Your task to perform on an android device: Add acer nitro to the cart on costco, then select checkout. Image 0: 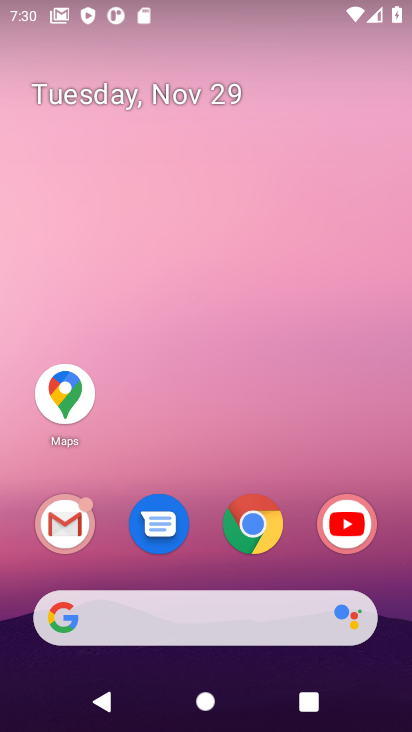
Step 0: click (244, 536)
Your task to perform on an android device: Add acer nitro to the cart on costco, then select checkout. Image 1: 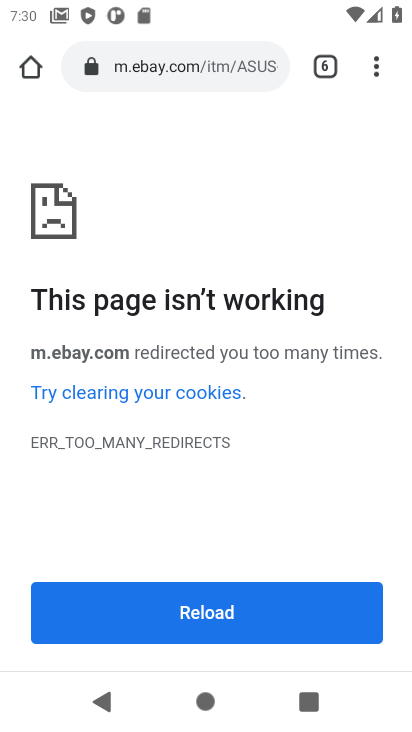
Step 1: click (170, 69)
Your task to perform on an android device: Add acer nitro to the cart on costco, then select checkout. Image 2: 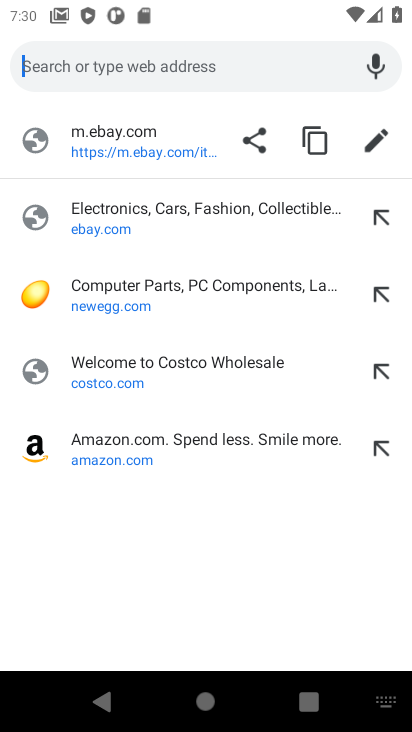
Step 2: click (104, 376)
Your task to perform on an android device: Add acer nitro to the cart on costco, then select checkout. Image 3: 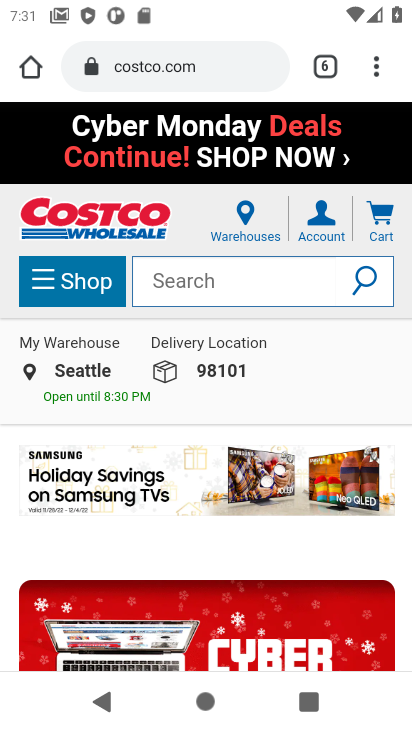
Step 3: click (197, 272)
Your task to perform on an android device: Add acer nitro to the cart on costco, then select checkout. Image 4: 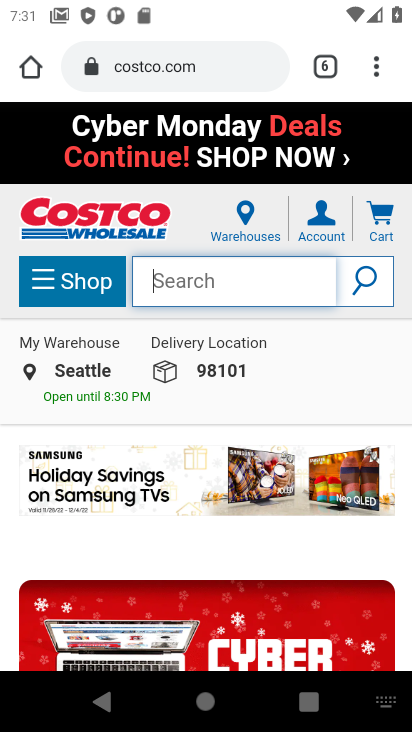
Step 4: type "acer nitro"
Your task to perform on an android device: Add acer nitro to the cart on costco, then select checkout. Image 5: 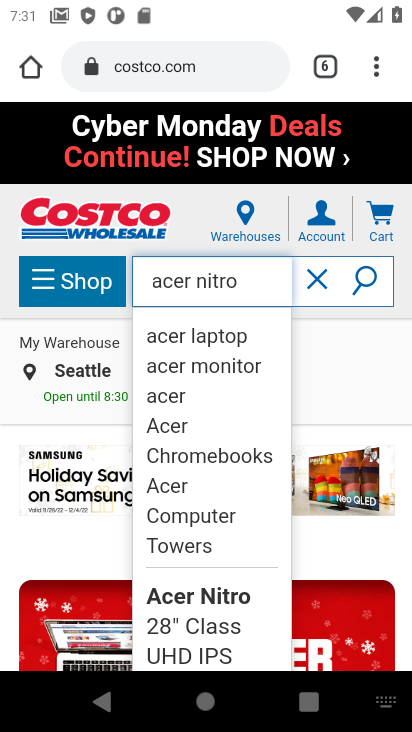
Step 5: click (362, 283)
Your task to perform on an android device: Add acer nitro to the cart on costco, then select checkout. Image 6: 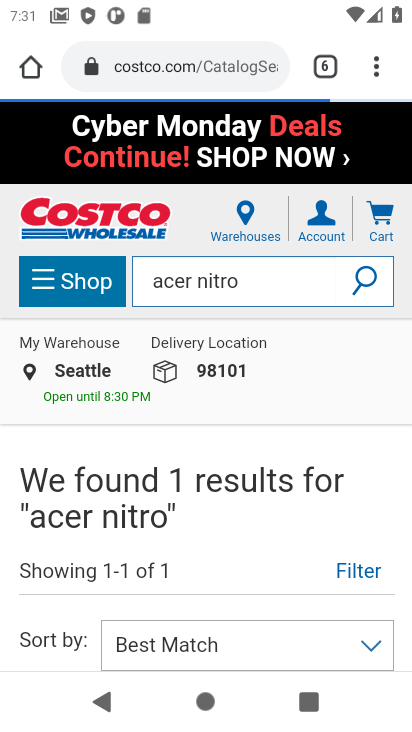
Step 6: drag from (256, 386) to (226, 142)
Your task to perform on an android device: Add acer nitro to the cart on costco, then select checkout. Image 7: 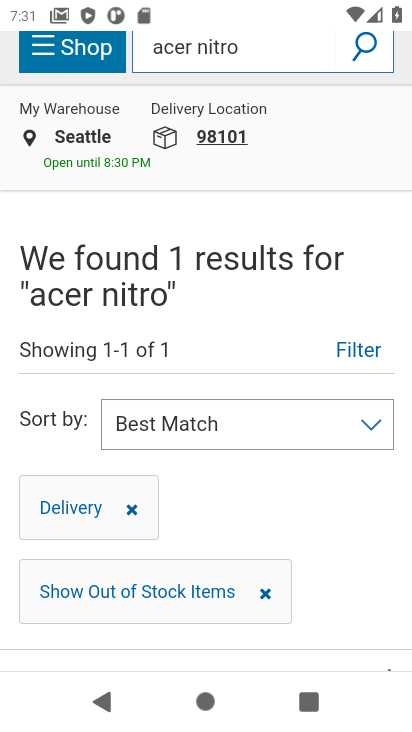
Step 7: drag from (235, 501) to (219, 301)
Your task to perform on an android device: Add acer nitro to the cart on costco, then select checkout. Image 8: 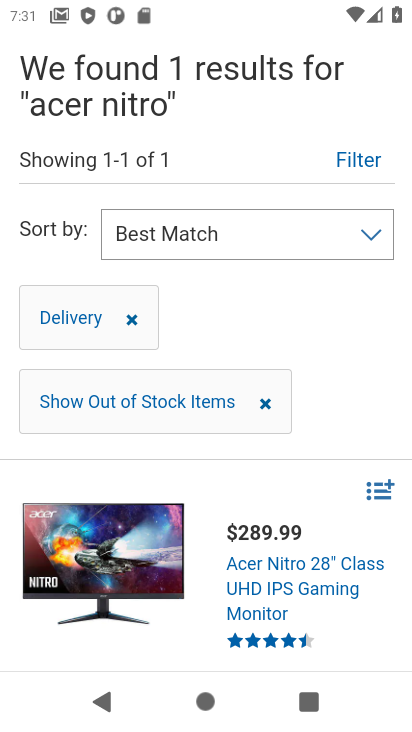
Step 8: drag from (201, 497) to (205, 349)
Your task to perform on an android device: Add acer nitro to the cart on costco, then select checkout. Image 9: 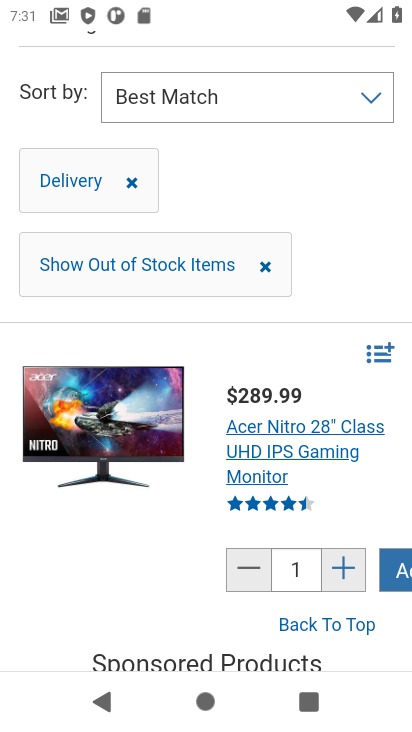
Step 9: click (403, 573)
Your task to perform on an android device: Add acer nitro to the cart on costco, then select checkout. Image 10: 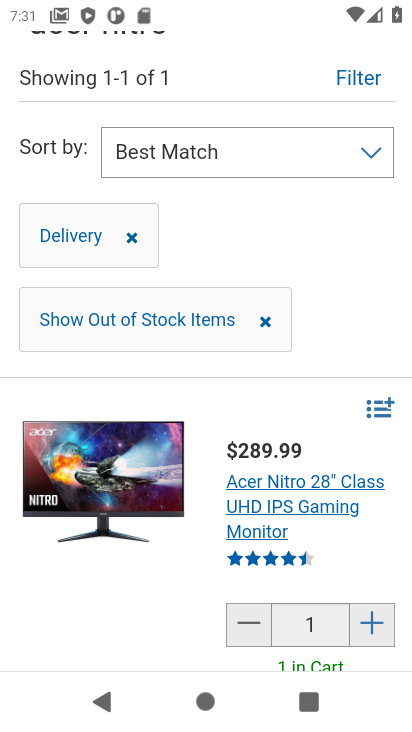
Step 10: drag from (352, 296) to (288, 504)
Your task to perform on an android device: Add acer nitro to the cart on costco, then select checkout. Image 11: 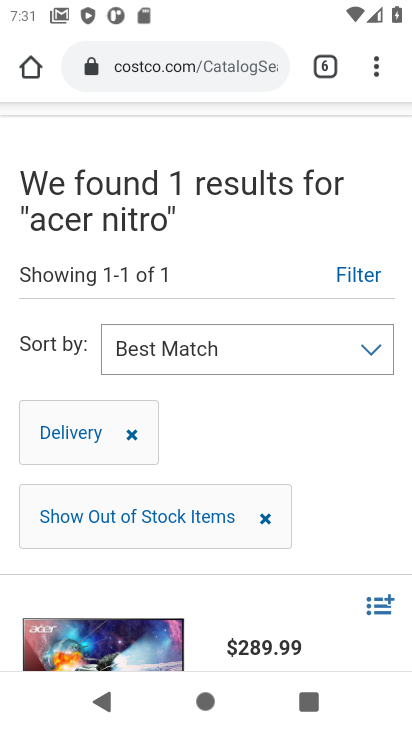
Step 11: drag from (292, 247) to (241, 456)
Your task to perform on an android device: Add acer nitro to the cart on costco, then select checkout. Image 12: 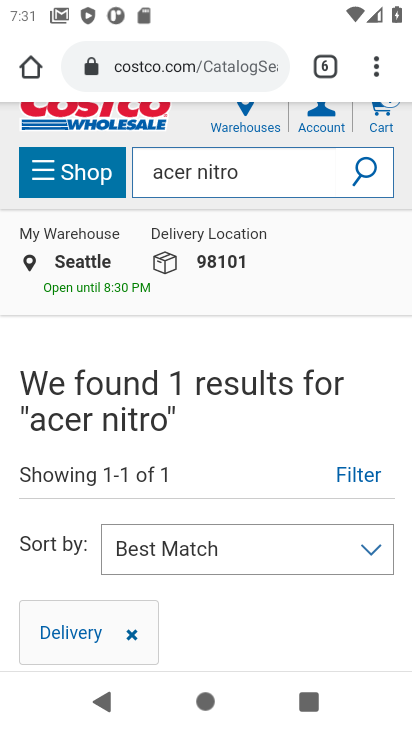
Step 12: drag from (302, 269) to (282, 390)
Your task to perform on an android device: Add acer nitro to the cart on costco, then select checkout. Image 13: 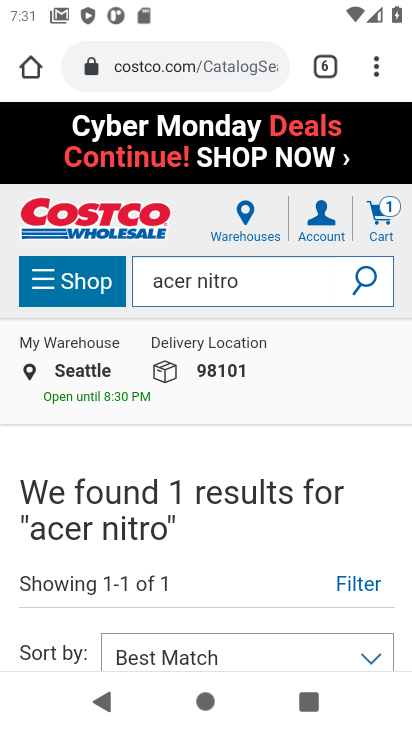
Step 13: click (385, 218)
Your task to perform on an android device: Add acer nitro to the cart on costco, then select checkout. Image 14: 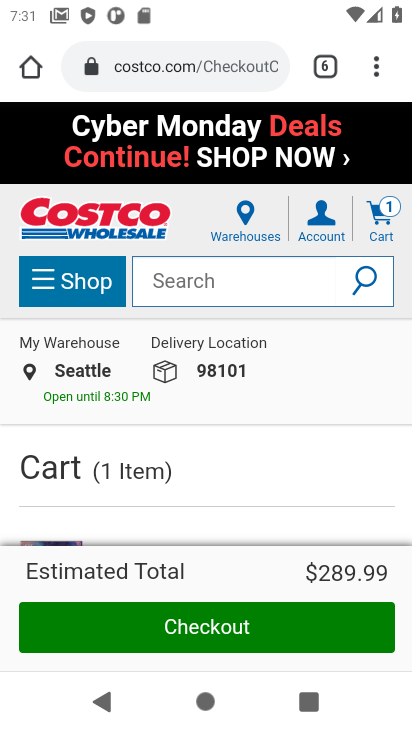
Step 14: click (209, 631)
Your task to perform on an android device: Add acer nitro to the cart on costco, then select checkout. Image 15: 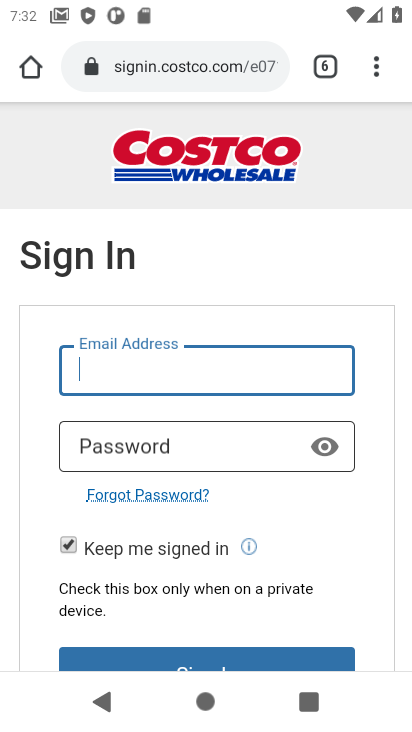
Step 15: task complete